Your task to perform on an android device: toggle show notifications on the lock screen Image 0: 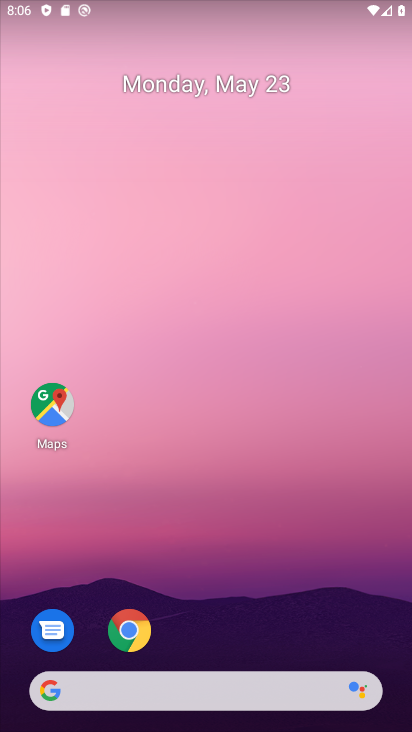
Step 0: drag from (192, 611) to (232, 51)
Your task to perform on an android device: toggle show notifications on the lock screen Image 1: 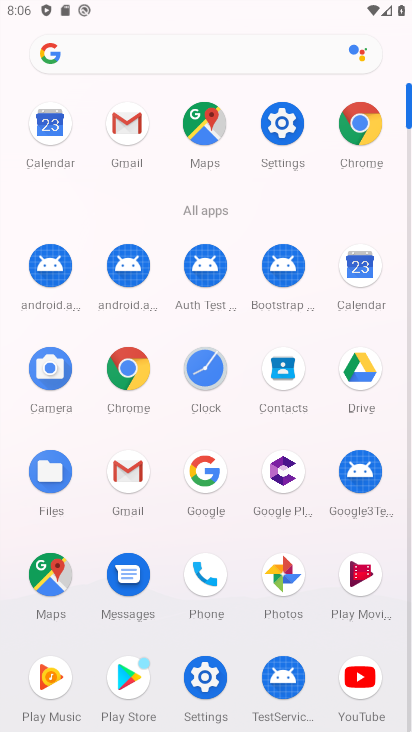
Step 1: click (283, 135)
Your task to perform on an android device: toggle show notifications on the lock screen Image 2: 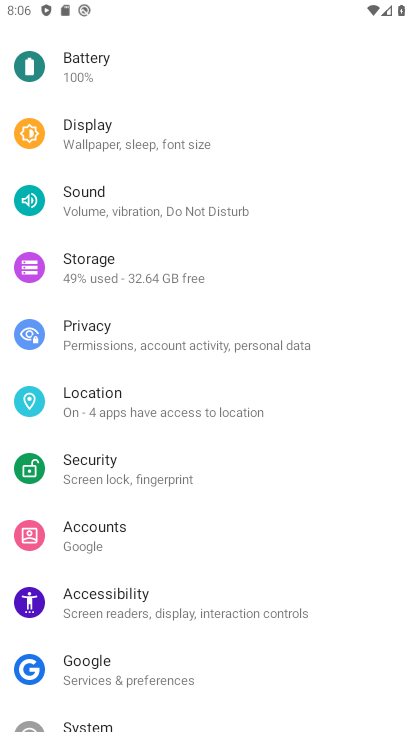
Step 2: drag from (242, 161) to (50, 643)
Your task to perform on an android device: toggle show notifications on the lock screen Image 3: 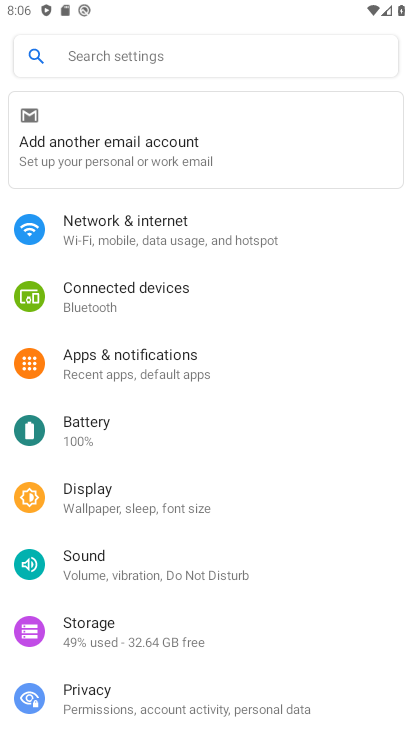
Step 3: click (140, 383)
Your task to perform on an android device: toggle show notifications on the lock screen Image 4: 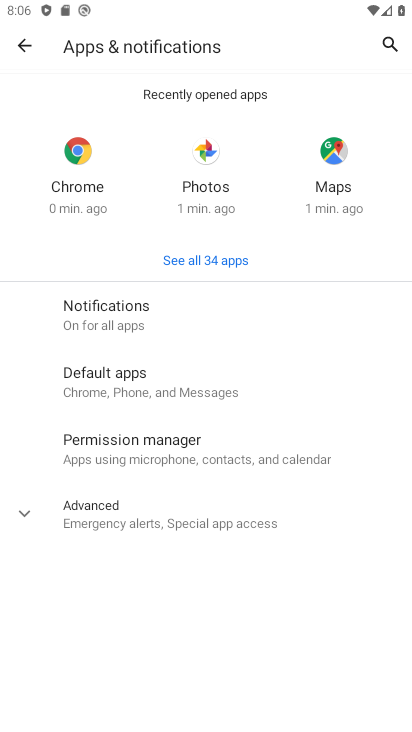
Step 4: click (87, 316)
Your task to perform on an android device: toggle show notifications on the lock screen Image 5: 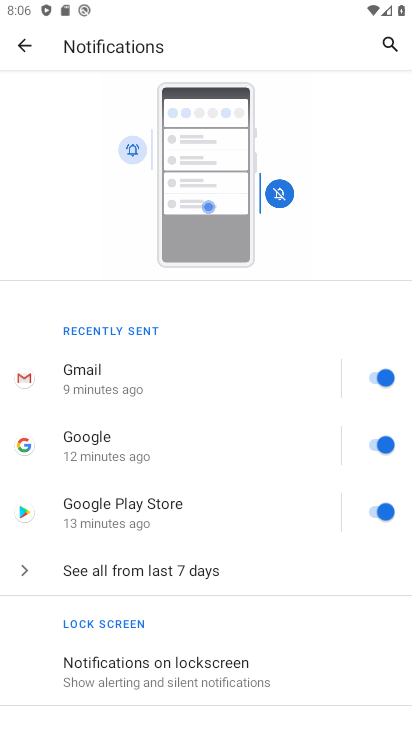
Step 5: click (156, 679)
Your task to perform on an android device: toggle show notifications on the lock screen Image 6: 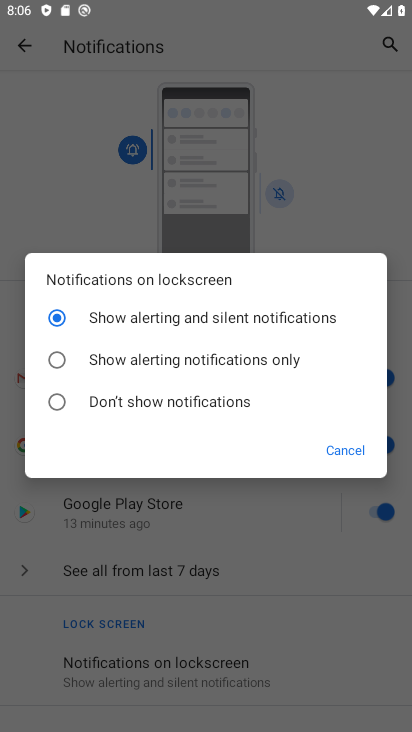
Step 6: click (60, 404)
Your task to perform on an android device: toggle show notifications on the lock screen Image 7: 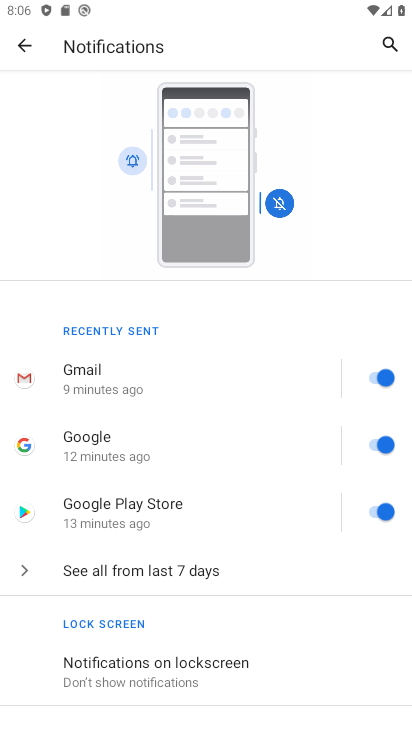
Step 7: task complete